Your task to perform on an android device: open a new tab in the chrome app Image 0: 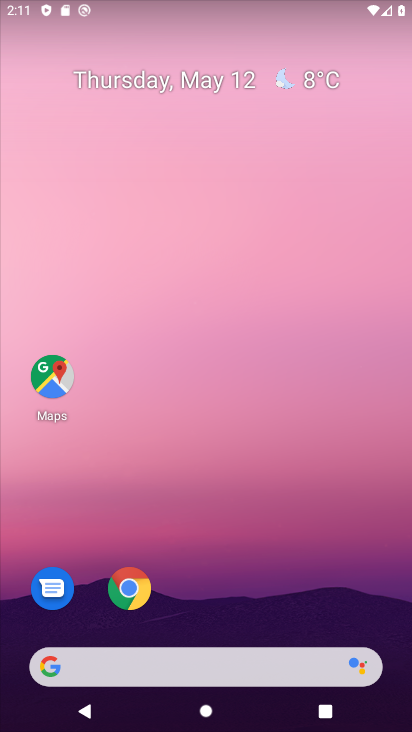
Step 0: drag from (226, 543) to (142, 2)
Your task to perform on an android device: open a new tab in the chrome app Image 1: 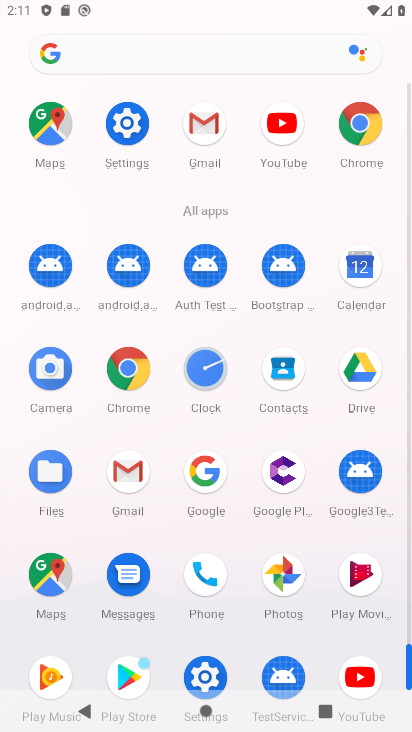
Step 1: drag from (0, 541) to (4, 282)
Your task to perform on an android device: open a new tab in the chrome app Image 2: 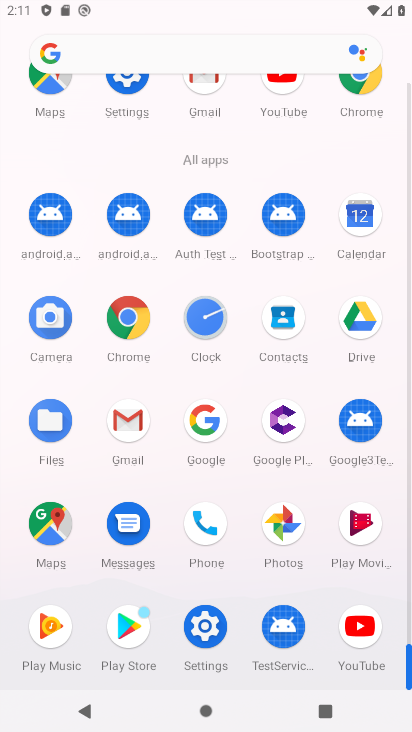
Step 2: click (129, 313)
Your task to perform on an android device: open a new tab in the chrome app Image 3: 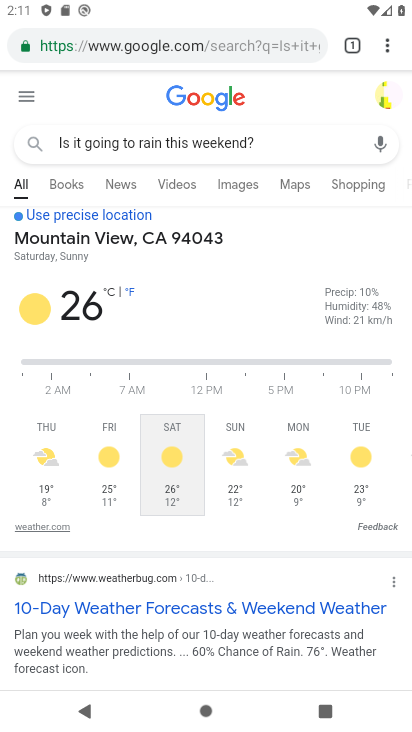
Step 3: task complete